Your task to perform on an android device: What is the news today? Image 0: 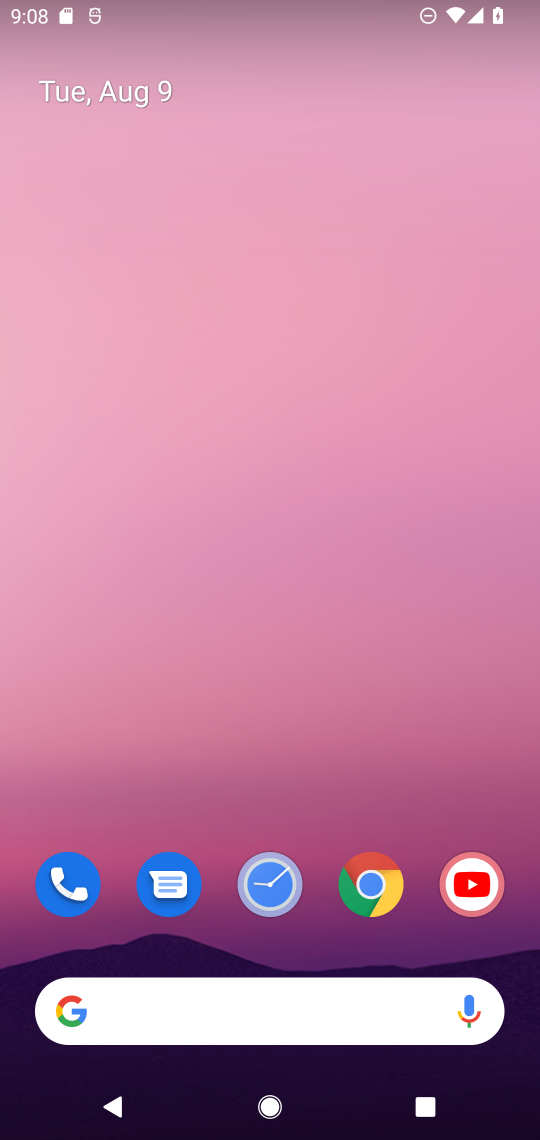
Step 0: drag from (172, 1025) to (291, 443)
Your task to perform on an android device: What is the news today? Image 1: 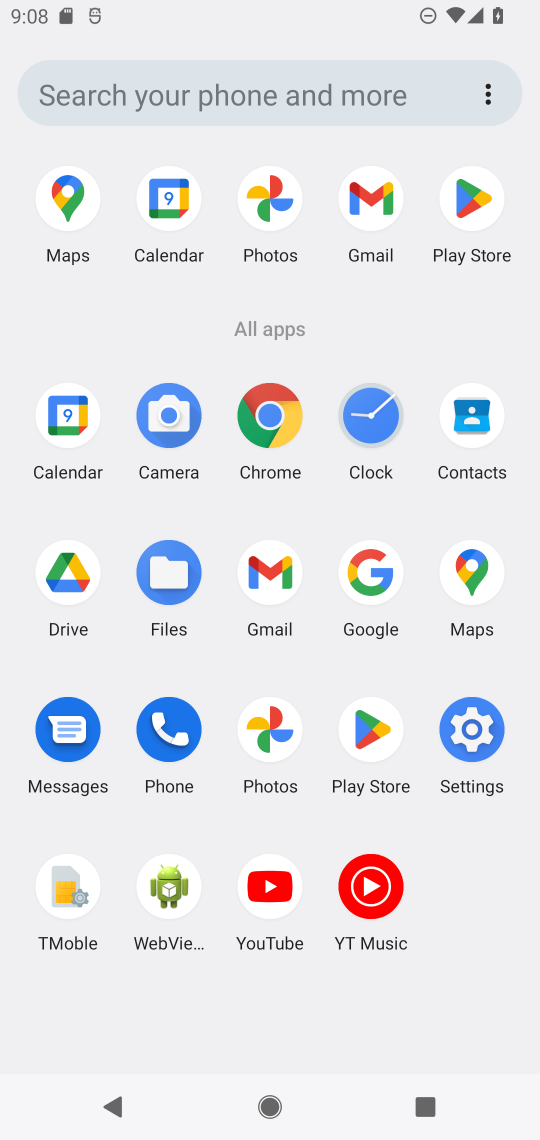
Step 1: click (260, 409)
Your task to perform on an android device: What is the news today? Image 2: 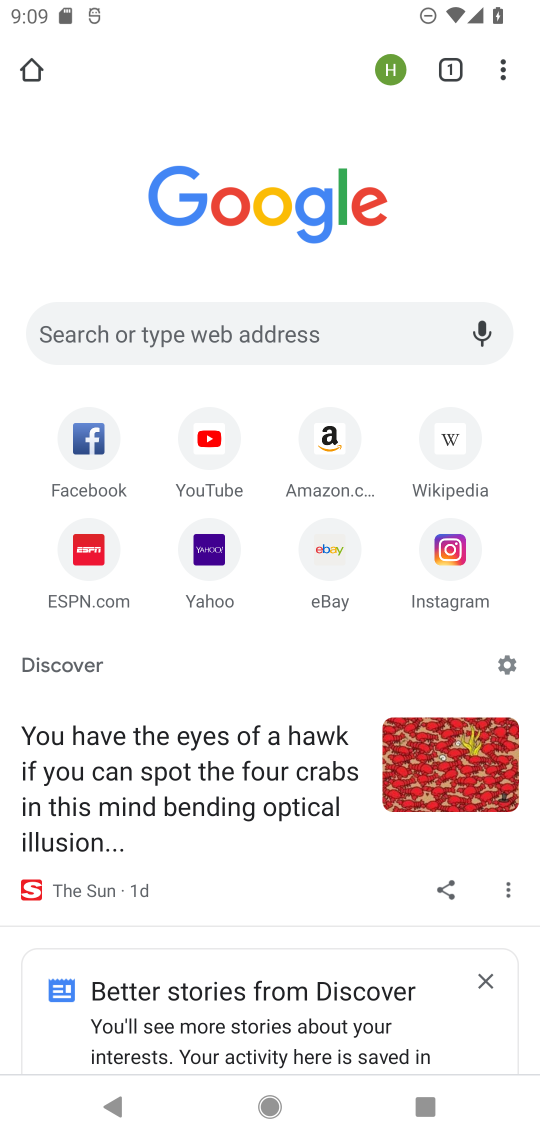
Step 2: click (308, 329)
Your task to perform on an android device: What is the news today? Image 3: 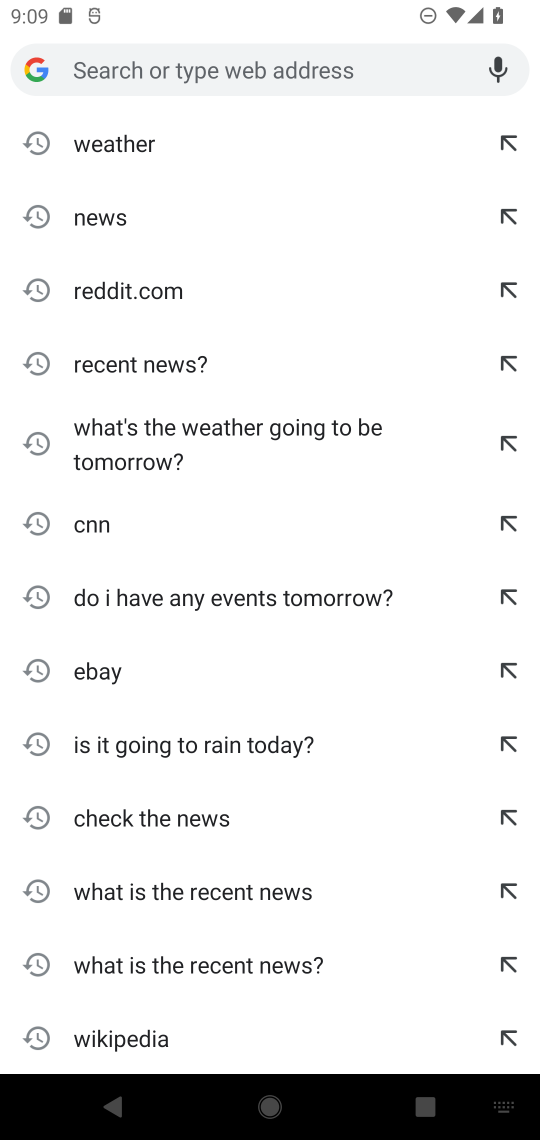
Step 3: type "What is the news today? "
Your task to perform on an android device: What is the news today? Image 4: 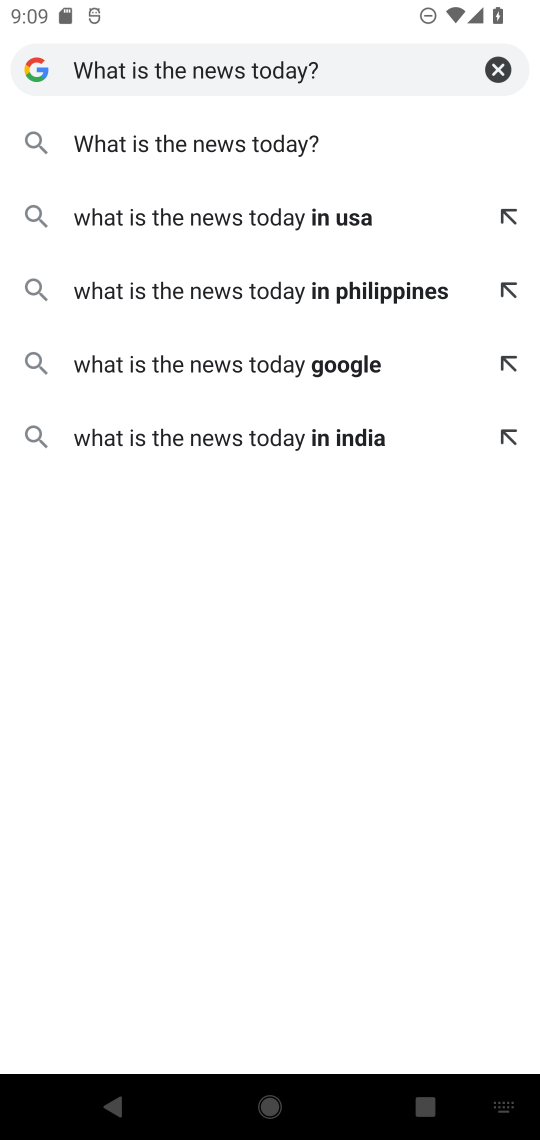
Step 4: click (146, 134)
Your task to perform on an android device: What is the news today? Image 5: 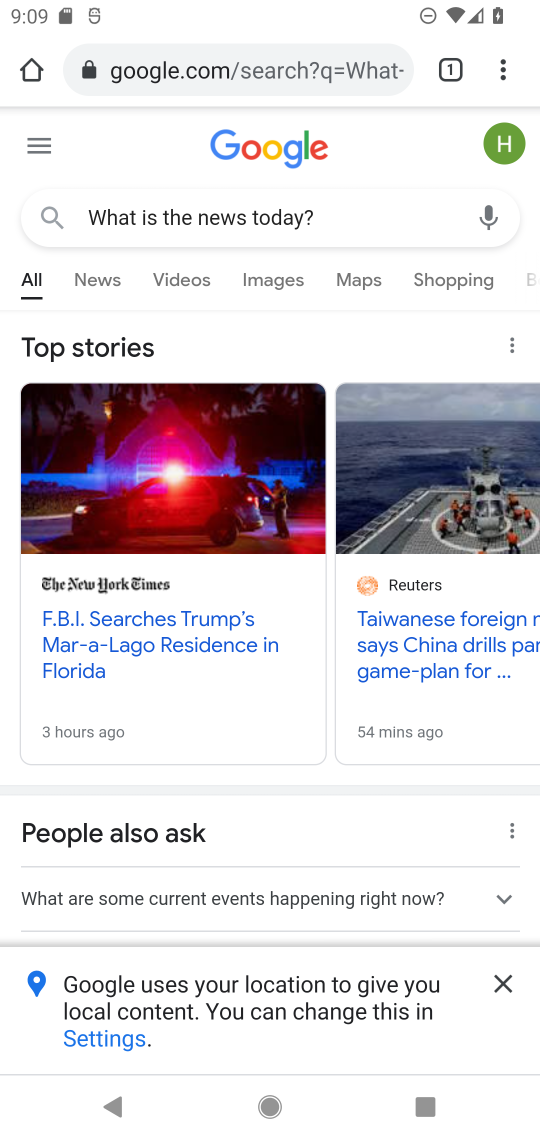
Step 5: task complete